Your task to perform on an android device: Search for "razer blade" on ebay, select the first entry, and add it to the cart. Image 0: 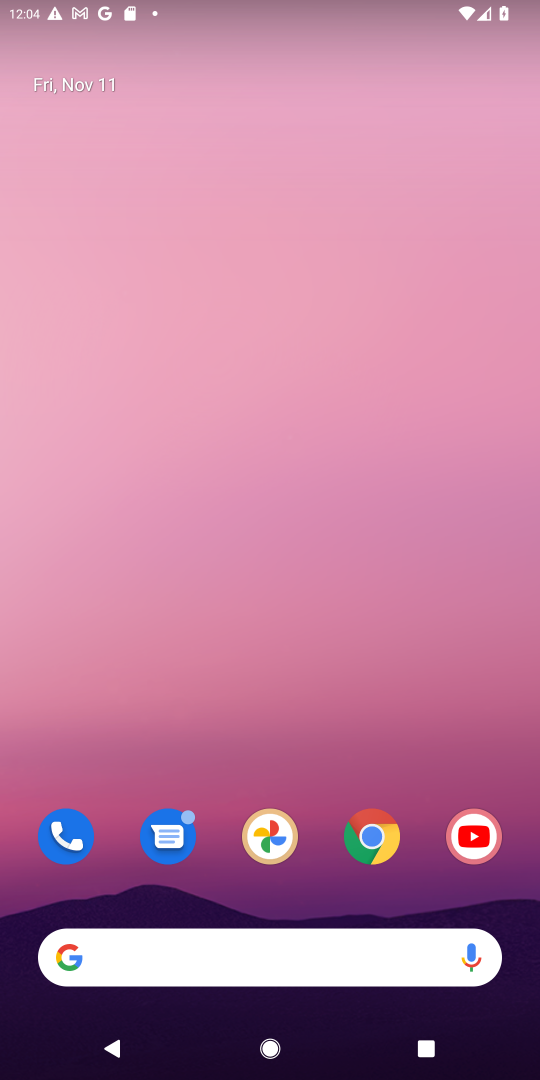
Step 0: click (271, 957)
Your task to perform on an android device: Search for "razer blade" on ebay, select the first entry, and add it to the cart. Image 1: 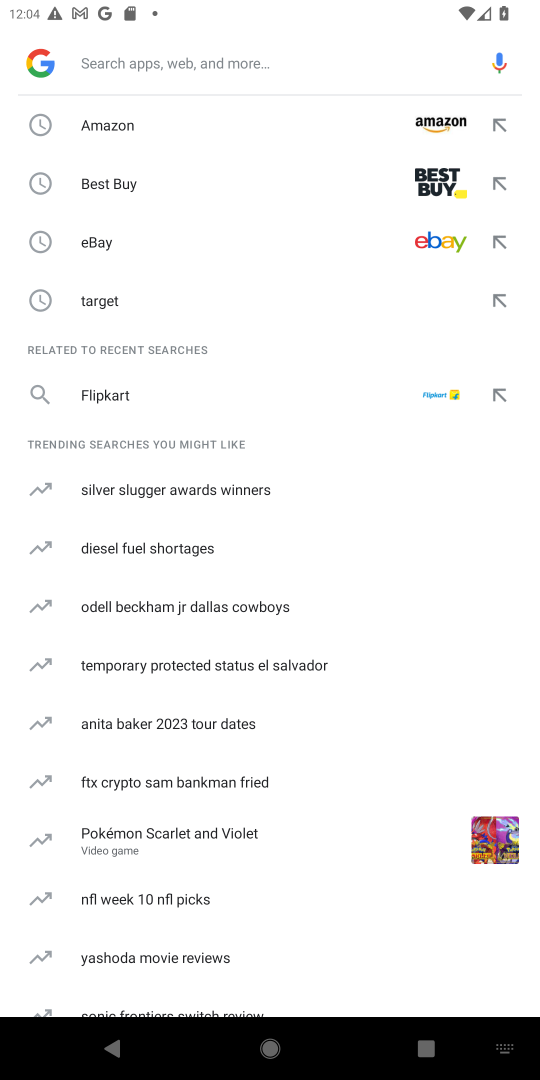
Step 1: click (191, 244)
Your task to perform on an android device: Search for "razer blade" on ebay, select the first entry, and add it to the cart. Image 2: 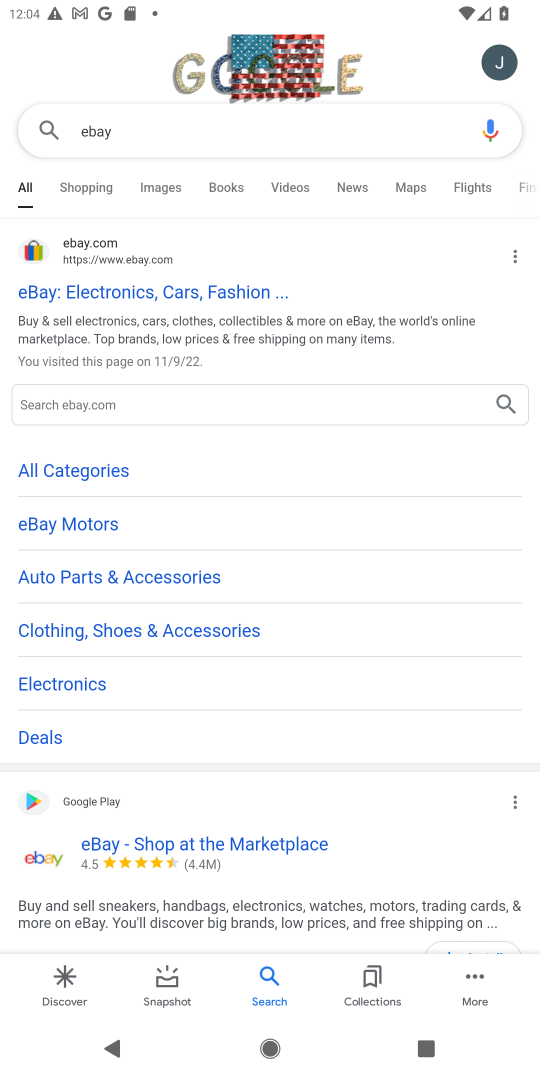
Step 2: click (75, 246)
Your task to perform on an android device: Search for "razer blade" on ebay, select the first entry, and add it to the cart. Image 3: 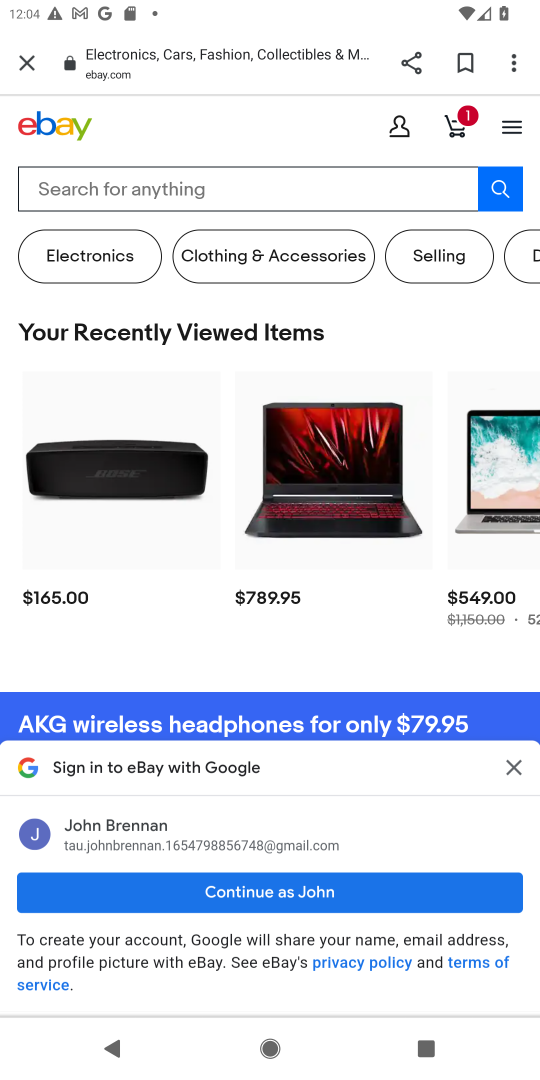
Step 3: click (190, 188)
Your task to perform on an android device: Search for "razer blade" on ebay, select the first entry, and add it to the cart. Image 4: 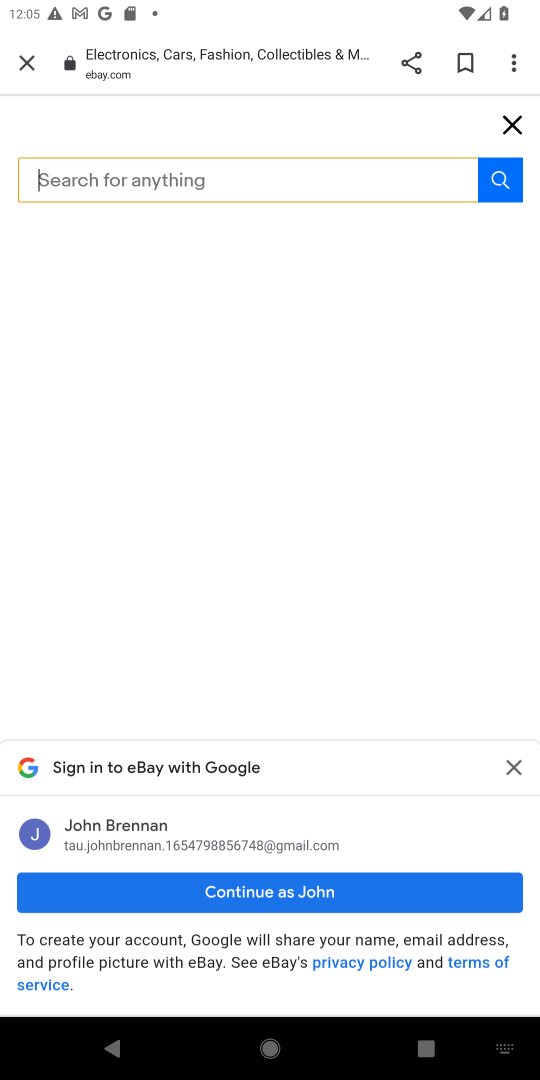
Step 4: click (515, 761)
Your task to perform on an android device: Search for "razer blade" on ebay, select the first entry, and add it to the cart. Image 5: 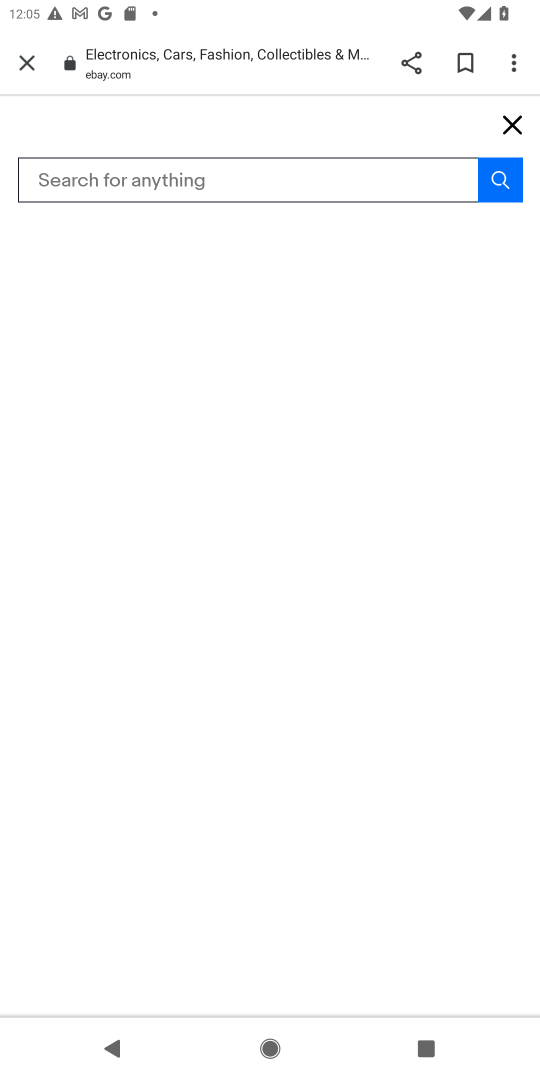
Step 5: click (309, 181)
Your task to perform on an android device: Search for "razer blade" on ebay, select the first entry, and add it to the cart. Image 6: 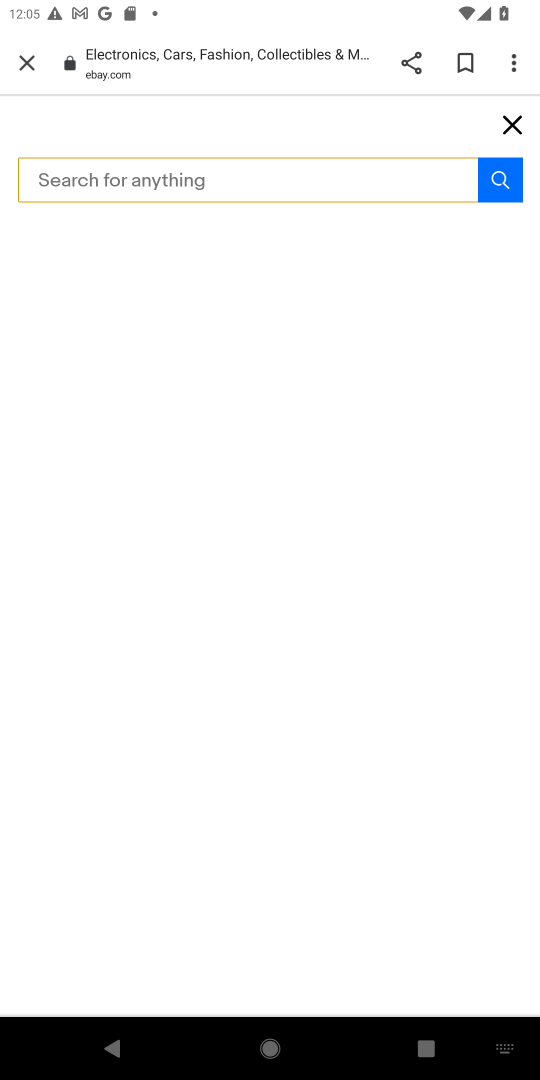
Step 6: type "razer blade"
Your task to perform on an android device: Search for "razer blade" on ebay, select the first entry, and add it to the cart. Image 7: 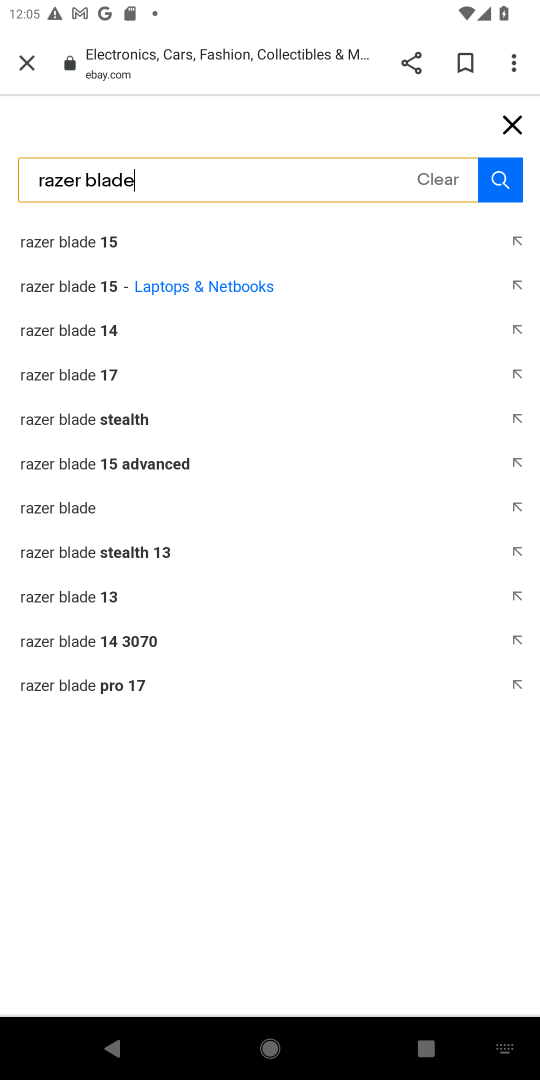
Step 7: click (61, 233)
Your task to perform on an android device: Search for "razer blade" on ebay, select the first entry, and add it to the cart. Image 8: 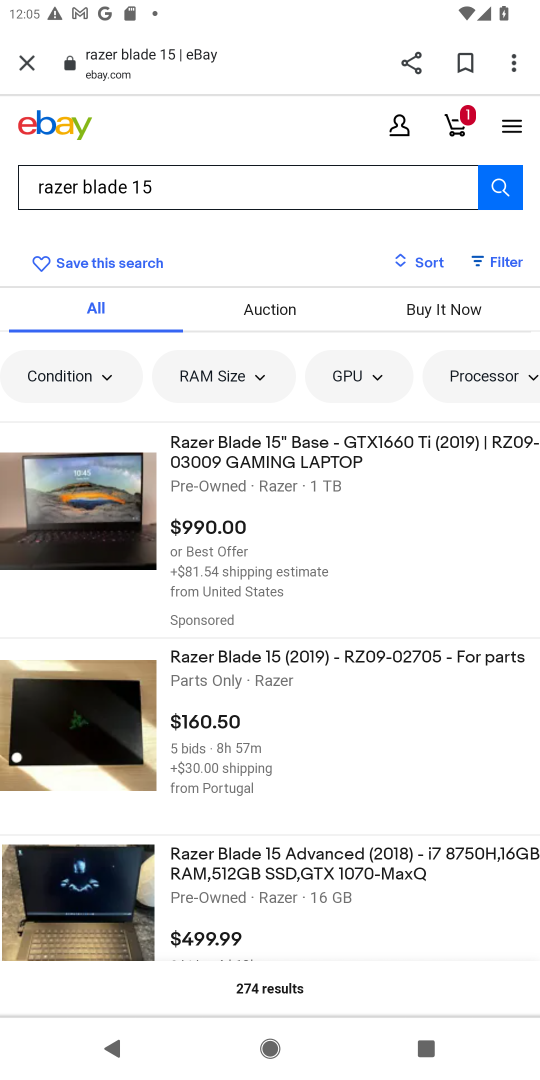
Step 8: click (221, 467)
Your task to perform on an android device: Search for "razer blade" on ebay, select the first entry, and add it to the cart. Image 9: 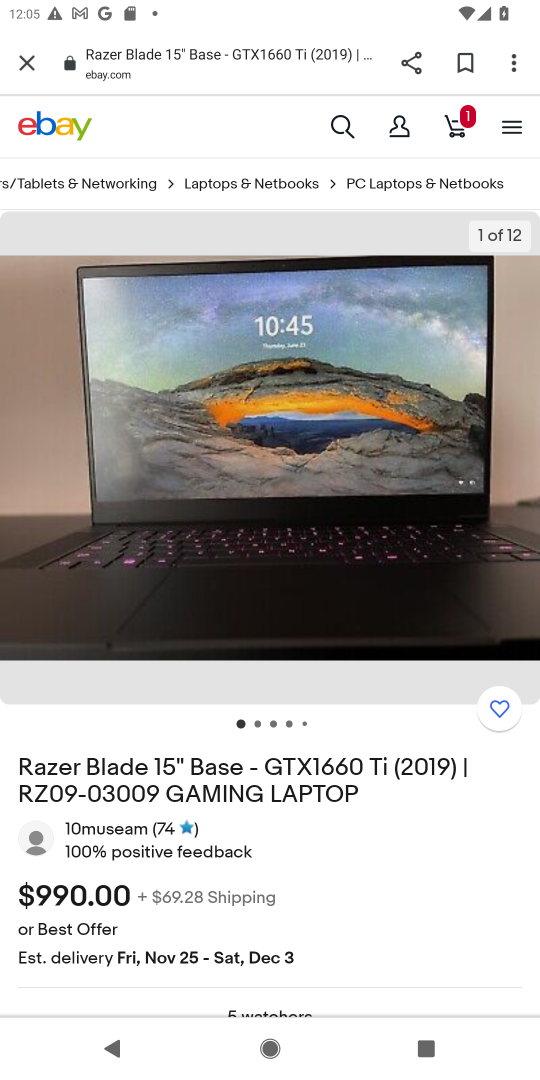
Step 9: drag from (287, 795) to (321, 467)
Your task to perform on an android device: Search for "razer blade" on ebay, select the first entry, and add it to the cart. Image 10: 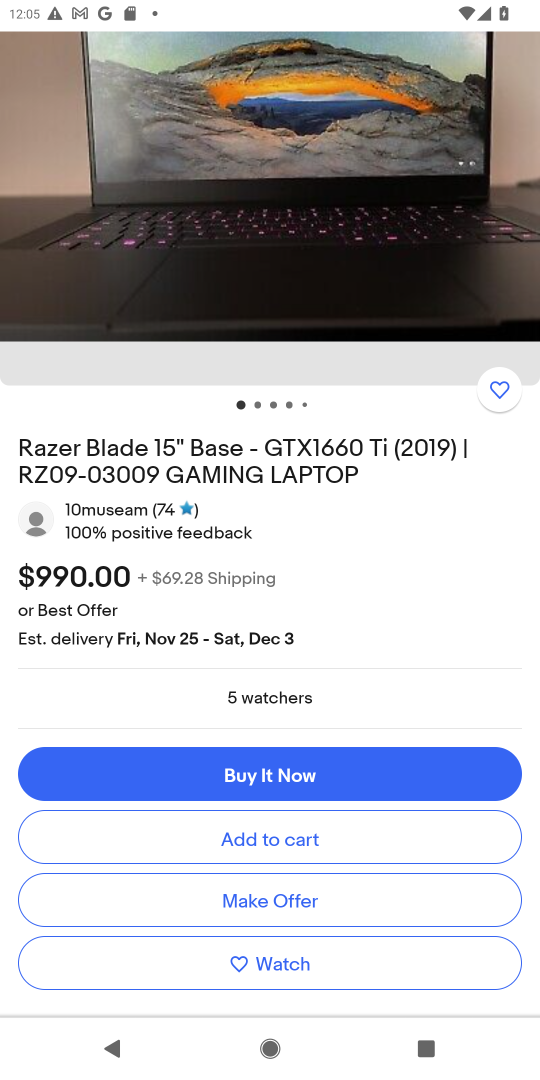
Step 10: click (272, 839)
Your task to perform on an android device: Search for "razer blade" on ebay, select the first entry, and add it to the cart. Image 11: 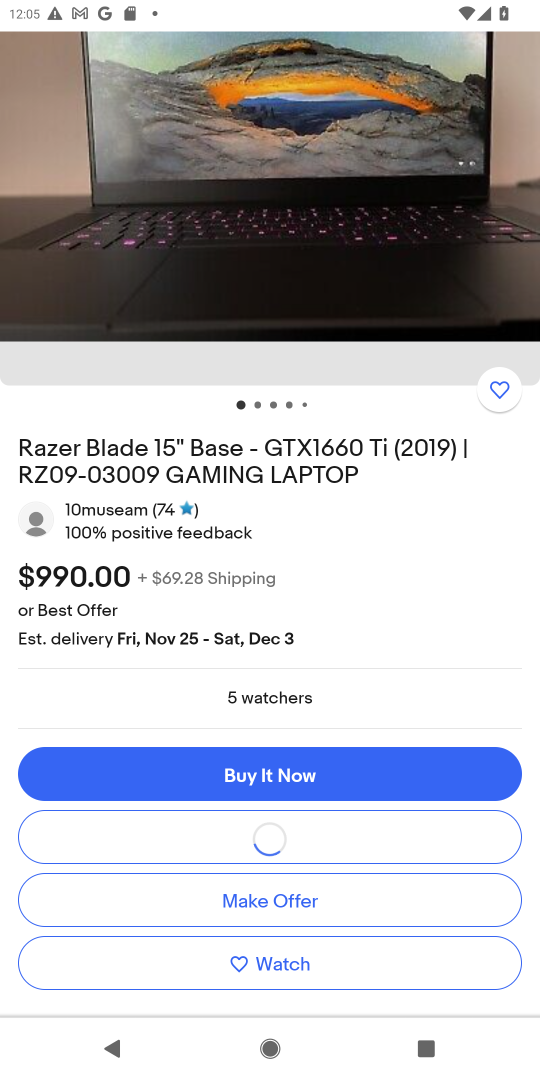
Step 11: click (260, 839)
Your task to perform on an android device: Search for "razer blade" on ebay, select the first entry, and add it to the cart. Image 12: 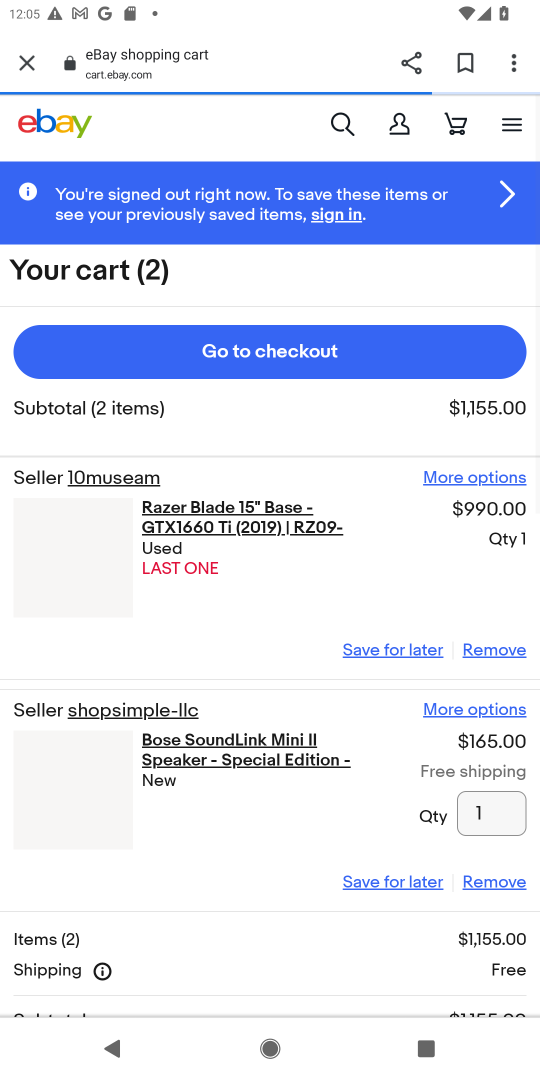
Step 12: click (260, 839)
Your task to perform on an android device: Search for "razer blade" on ebay, select the first entry, and add it to the cart. Image 13: 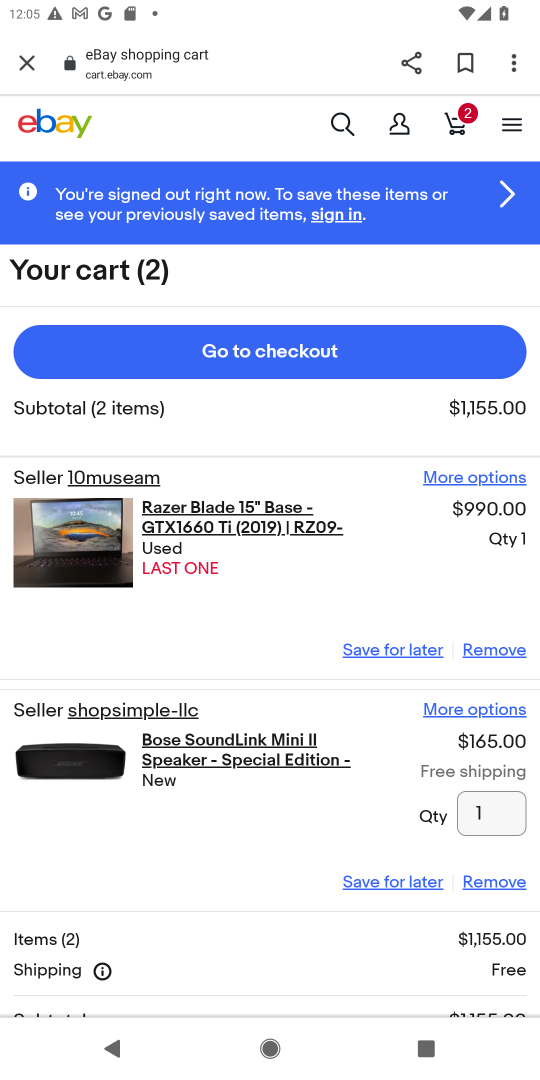
Step 13: click (282, 352)
Your task to perform on an android device: Search for "razer blade" on ebay, select the first entry, and add it to the cart. Image 14: 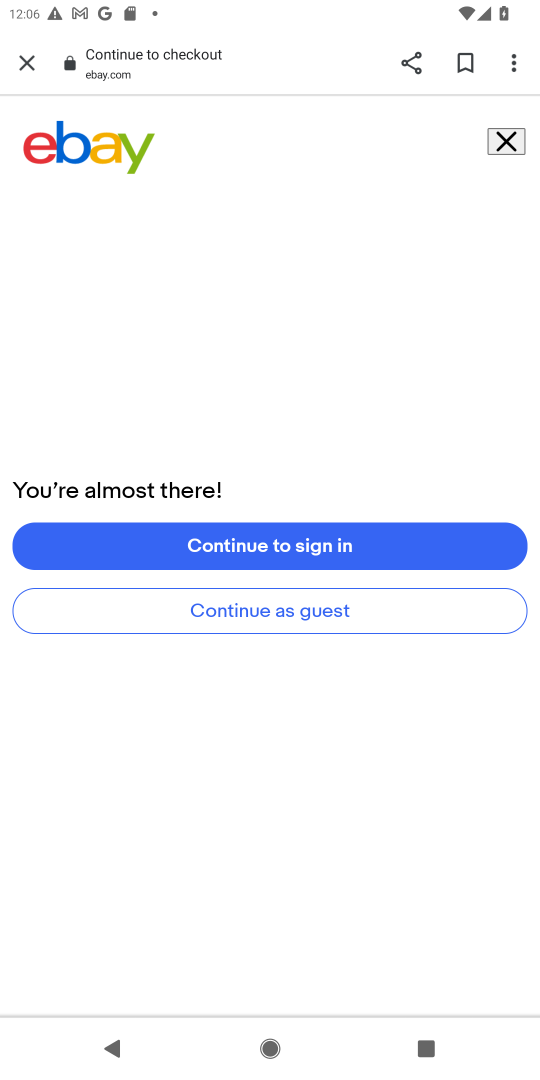
Step 14: task complete